Your task to perform on an android device: open the mobile data screen to see how much data has been used Image 0: 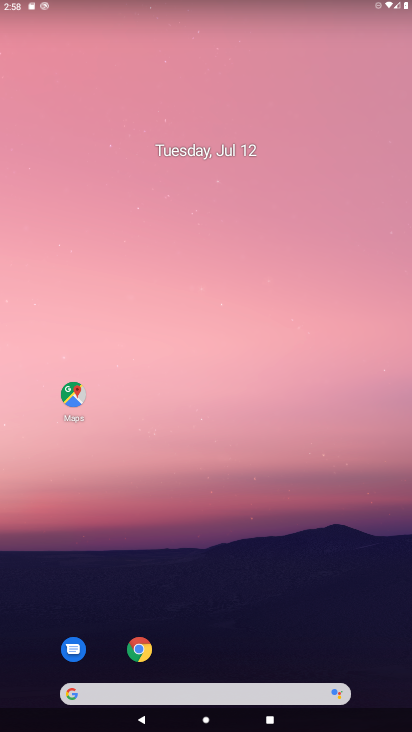
Step 0: drag from (258, 375) to (253, 179)
Your task to perform on an android device: open the mobile data screen to see how much data has been used Image 1: 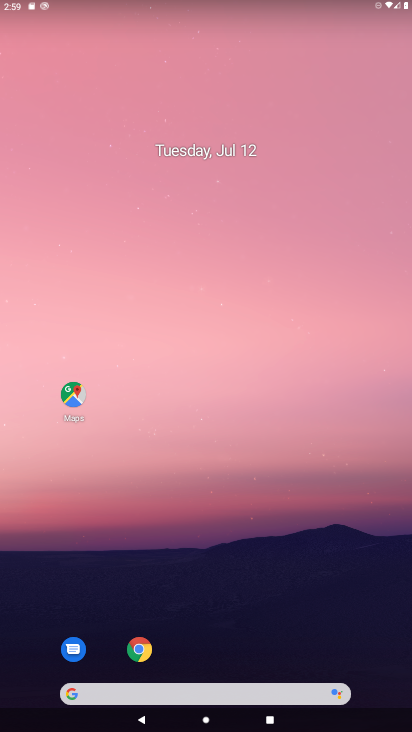
Step 1: drag from (196, 367) to (196, 124)
Your task to perform on an android device: open the mobile data screen to see how much data has been used Image 2: 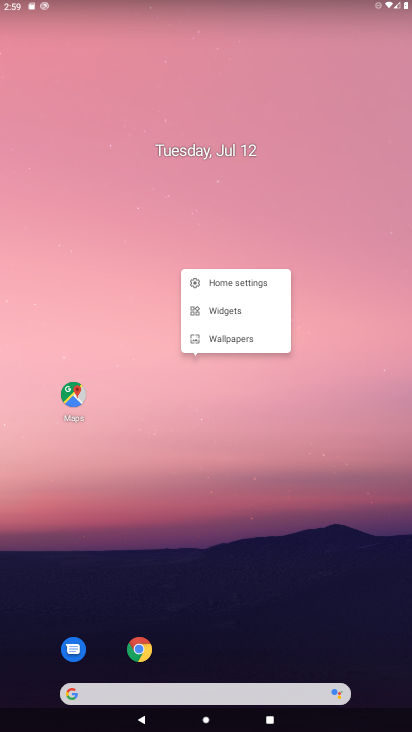
Step 2: click (218, 499)
Your task to perform on an android device: open the mobile data screen to see how much data has been used Image 3: 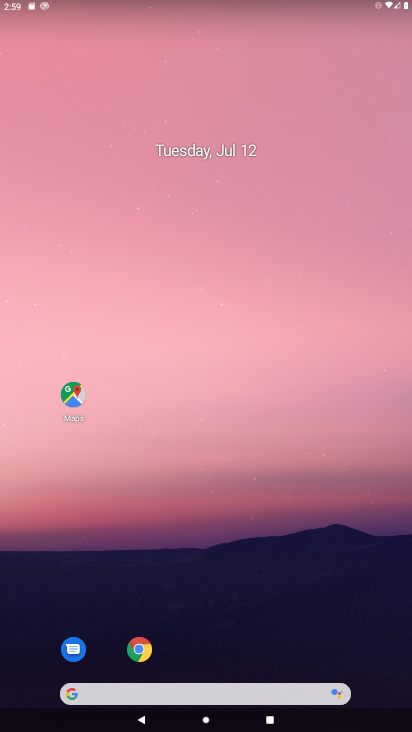
Step 3: drag from (239, 624) to (224, 45)
Your task to perform on an android device: open the mobile data screen to see how much data has been used Image 4: 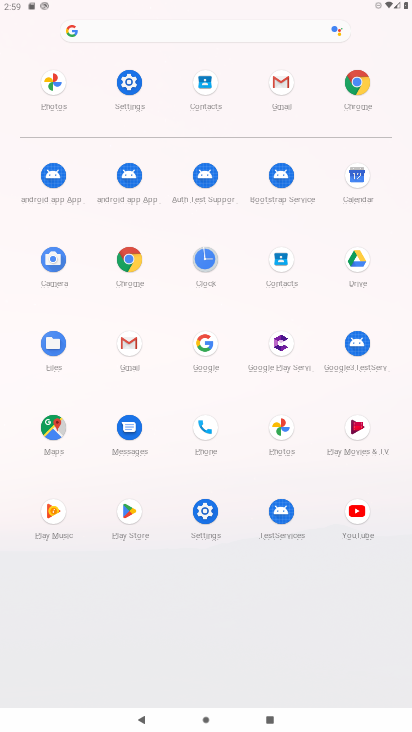
Step 4: click (137, 77)
Your task to perform on an android device: open the mobile data screen to see how much data has been used Image 5: 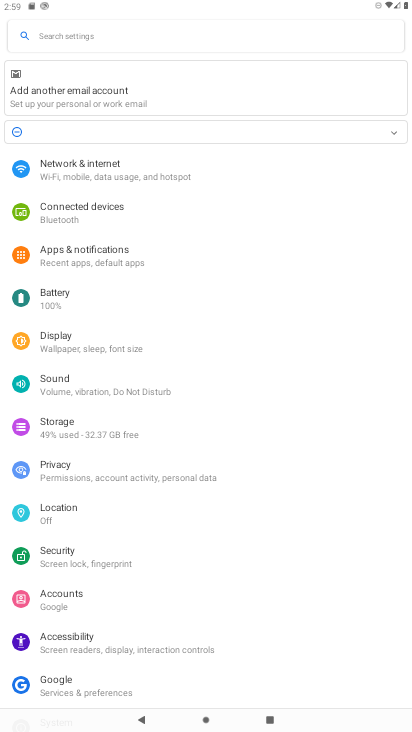
Step 5: click (110, 179)
Your task to perform on an android device: open the mobile data screen to see how much data has been used Image 6: 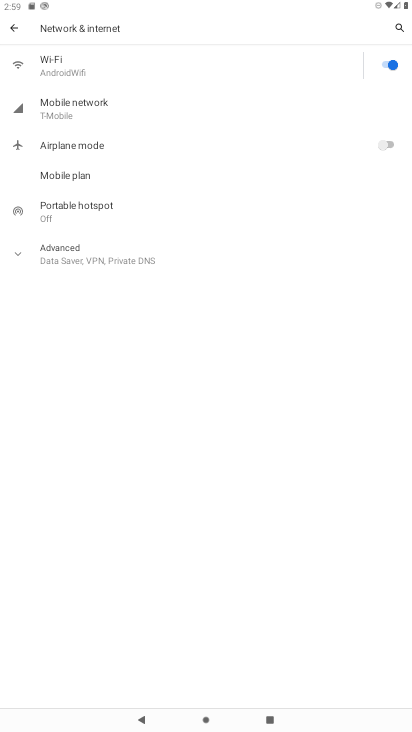
Step 6: click (143, 122)
Your task to perform on an android device: open the mobile data screen to see how much data has been used Image 7: 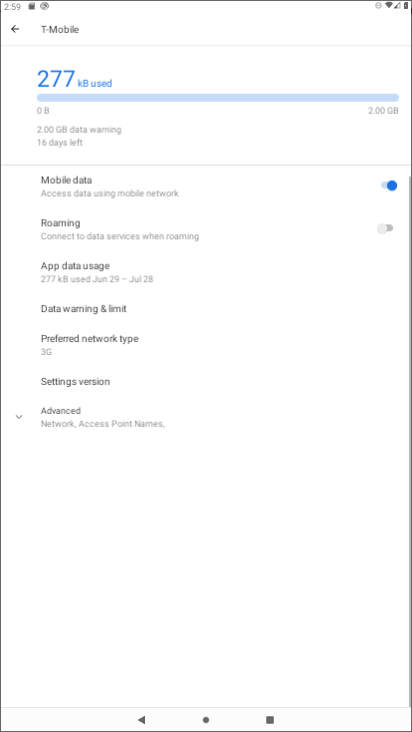
Step 7: task complete